Your task to perform on an android device: What's the weather? Image 0: 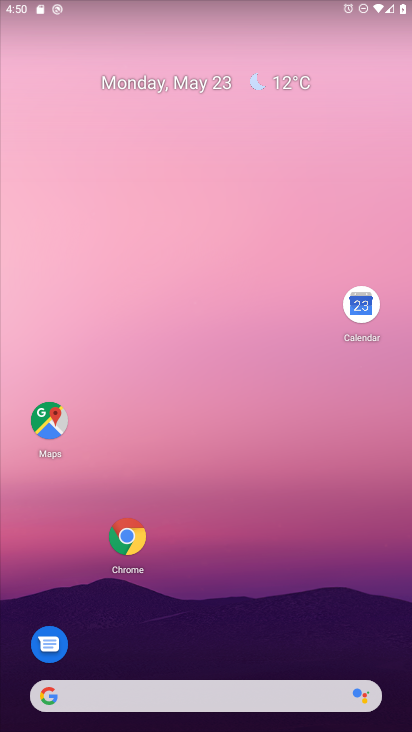
Step 0: click (286, 596)
Your task to perform on an android device: What's the weather? Image 1: 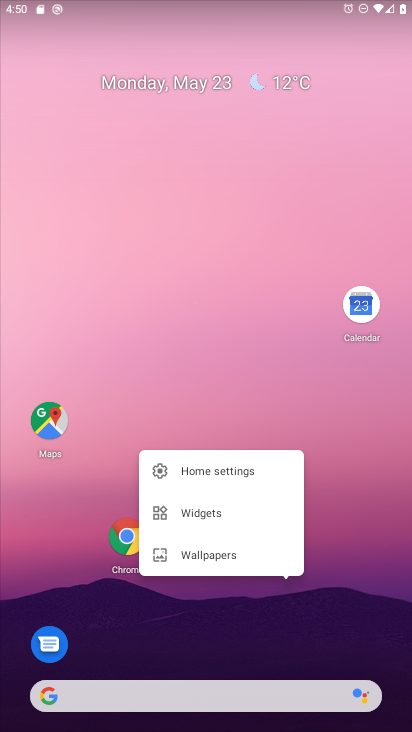
Step 1: click (276, 83)
Your task to perform on an android device: What's the weather? Image 2: 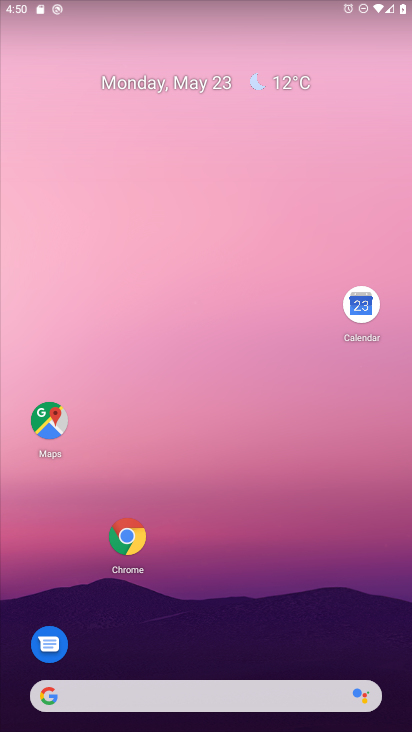
Step 2: click (276, 83)
Your task to perform on an android device: What's the weather? Image 3: 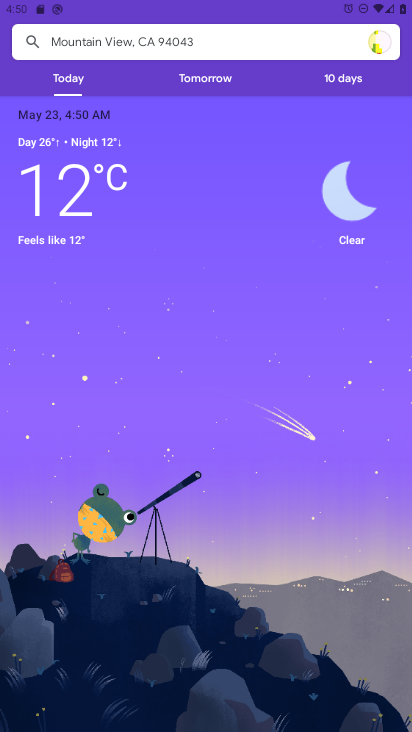
Step 3: task complete